Your task to perform on an android device: Go to privacy settings Image 0: 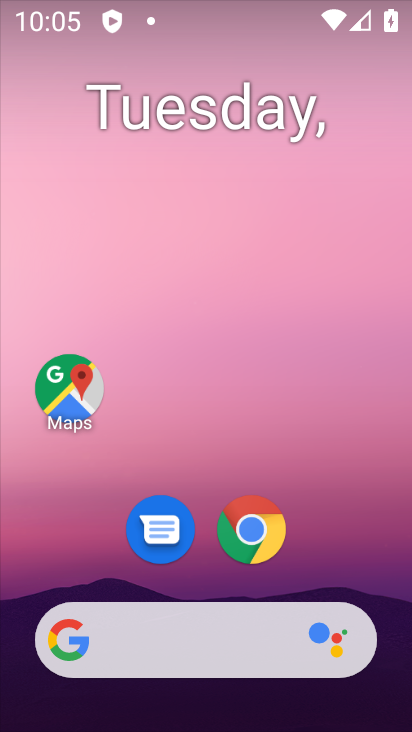
Step 0: drag from (216, 605) to (177, 20)
Your task to perform on an android device: Go to privacy settings Image 1: 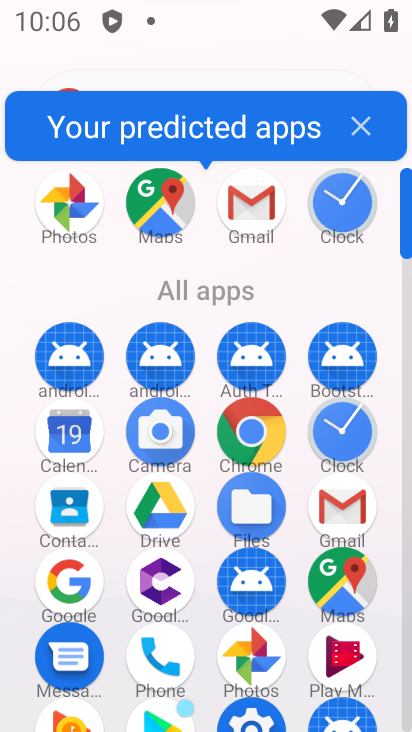
Step 1: drag from (189, 599) to (181, 421)
Your task to perform on an android device: Go to privacy settings Image 2: 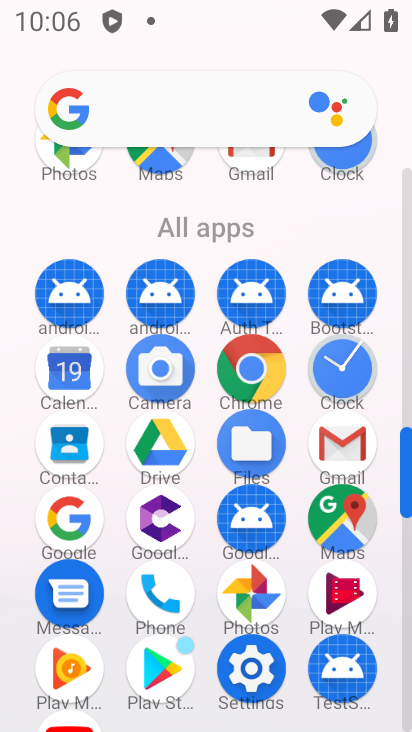
Step 2: click (256, 668)
Your task to perform on an android device: Go to privacy settings Image 3: 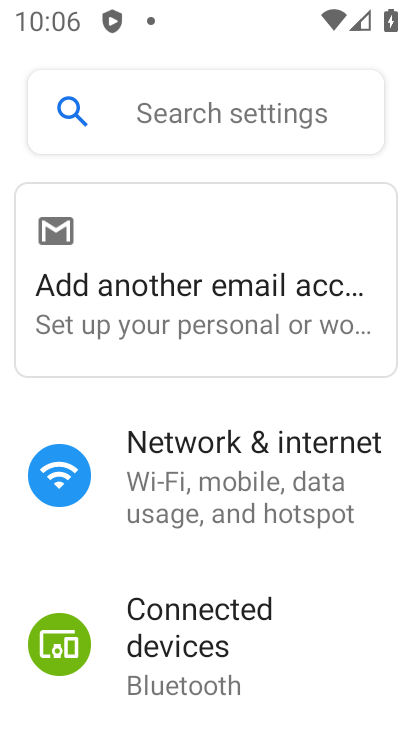
Step 3: drag from (223, 592) to (223, 197)
Your task to perform on an android device: Go to privacy settings Image 4: 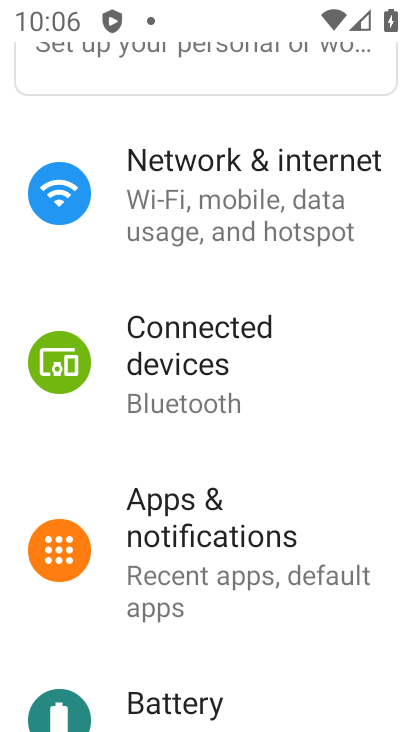
Step 4: drag from (212, 607) to (238, 296)
Your task to perform on an android device: Go to privacy settings Image 5: 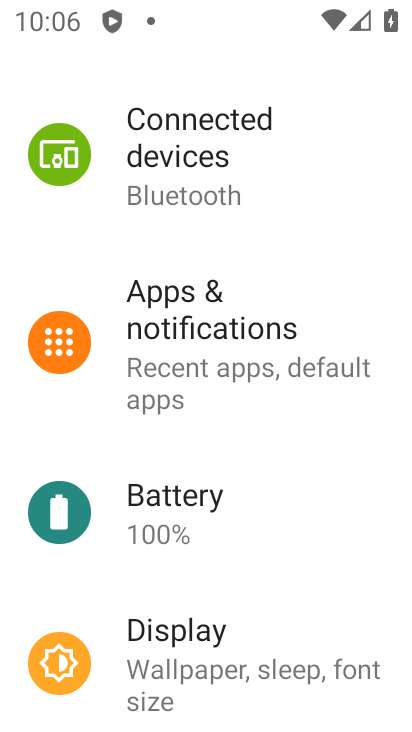
Step 5: drag from (140, 589) to (192, 386)
Your task to perform on an android device: Go to privacy settings Image 6: 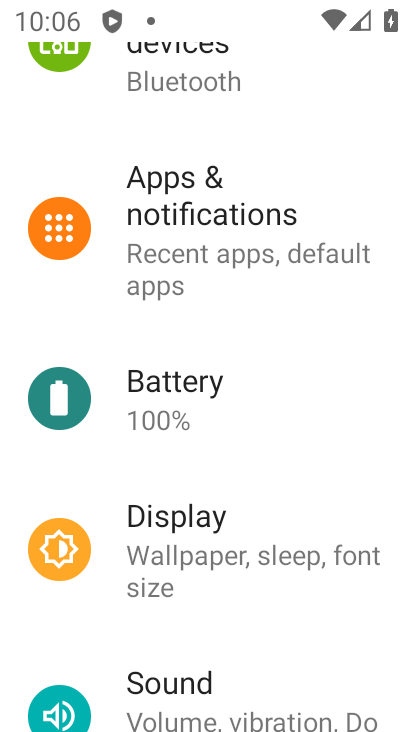
Step 6: drag from (230, 611) to (246, 202)
Your task to perform on an android device: Go to privacy settings Image 7: 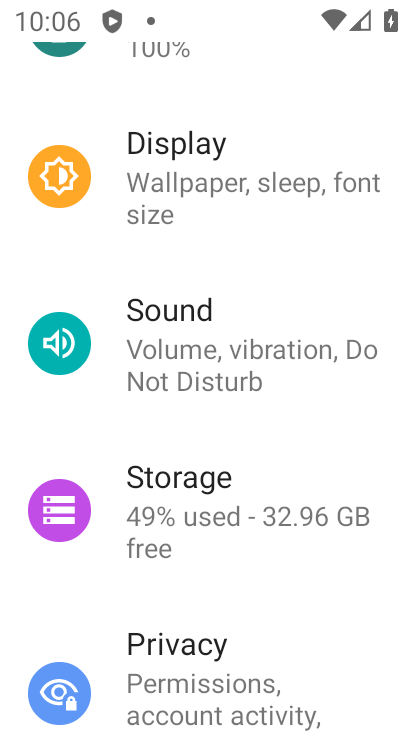
Step 7: click (179, 659)
Your task to perform on an android device: Go to privacy settings Image 8: 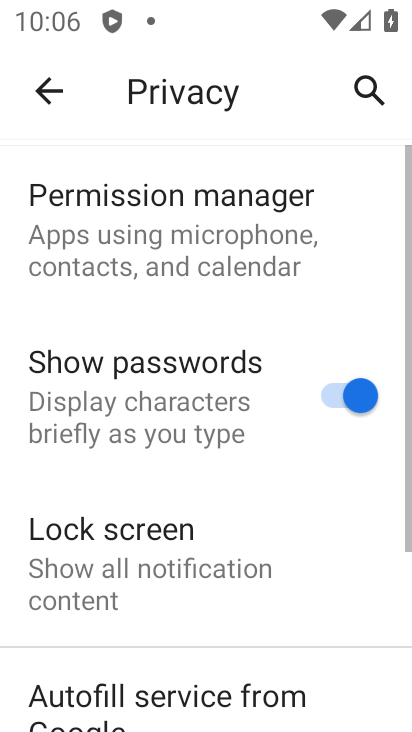
Step 8: task complete